Your task to perform on an android device: Open maps Image 0: 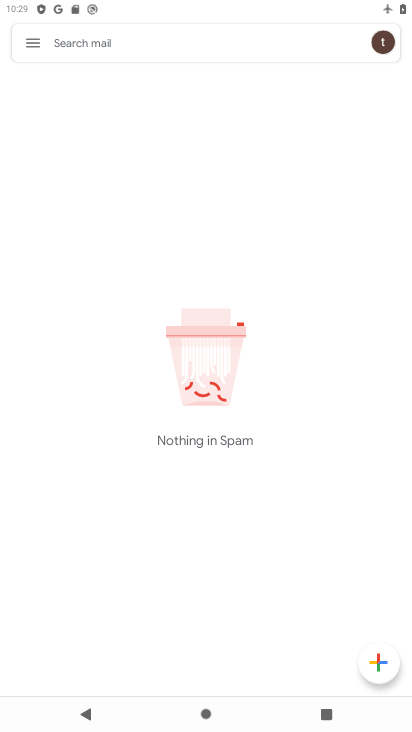
Step 0: press home button
Your task to perform on an android device: Open maps Image 1: 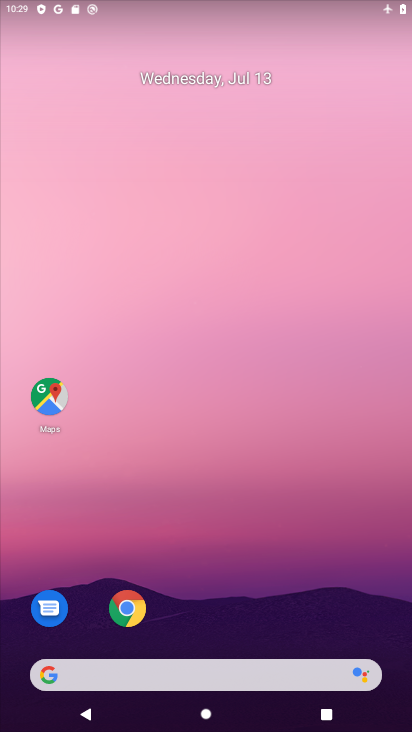
Step 1: click (42, 401)
Your task to perform on an android device: Open maps Image 2: 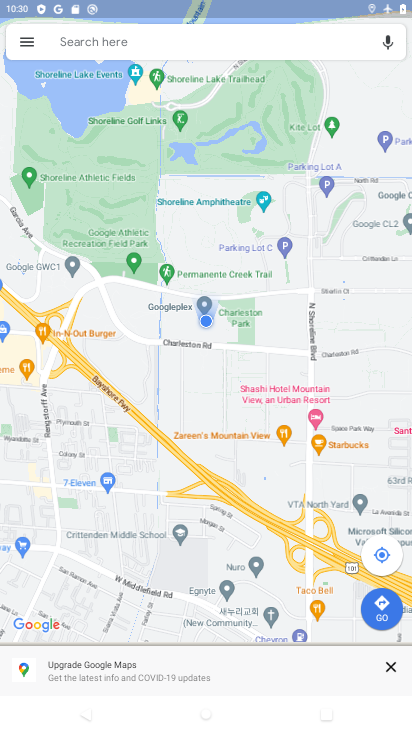
Step 2: task complete